Your task to perform on an android device: search for starred emails in the gmail app Image 0: 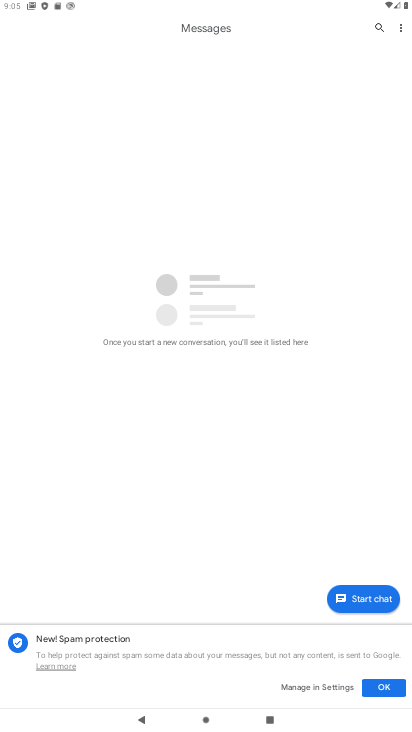
Step 0: press home button
Your task to perform on an android device: search for starred emails in the gmail app Image 1: 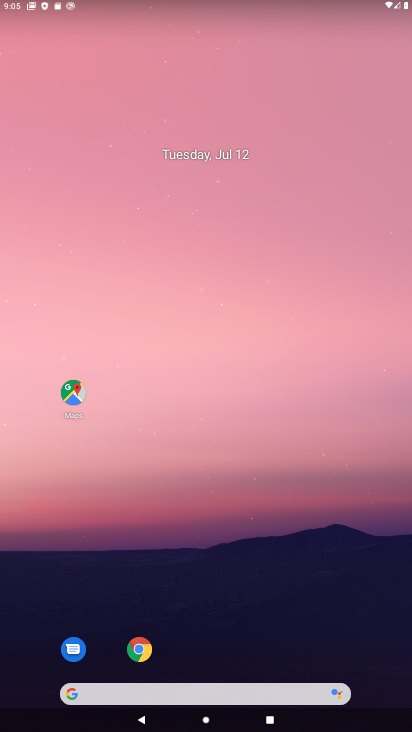
Step 1: drag from (293, 637) to (283, 252)
Your task to perform on an android device: search for starred emails in the gmail app Image 2: 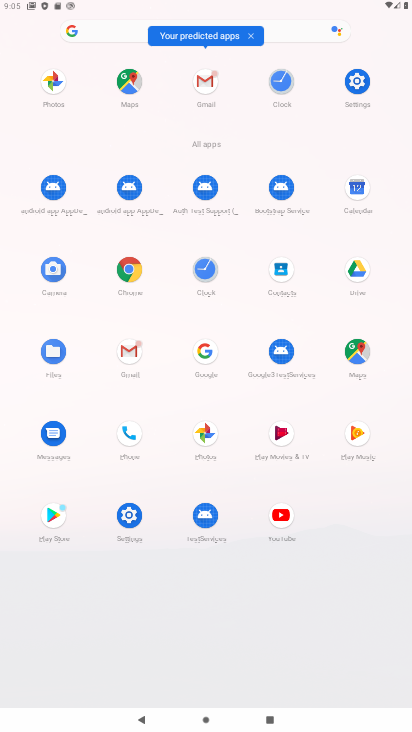
Step 2: click (200, 81)
Your task to perform on an android device: search for starred emails in the gmail app Image 3: 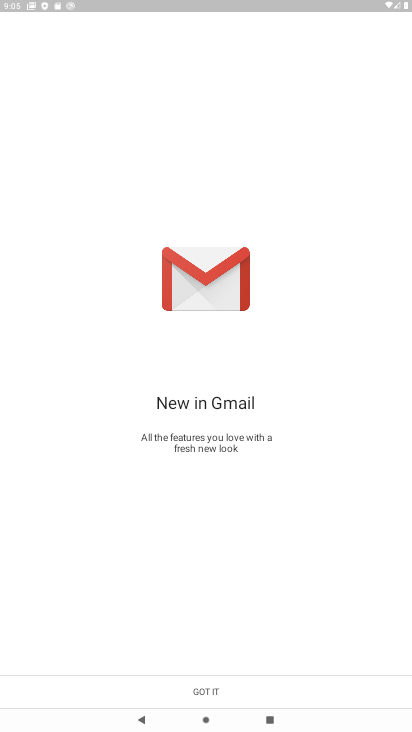
Step 3: click (57, 697)
Your task to perform on an android device: search for starred emails in the gmail app Image 4: 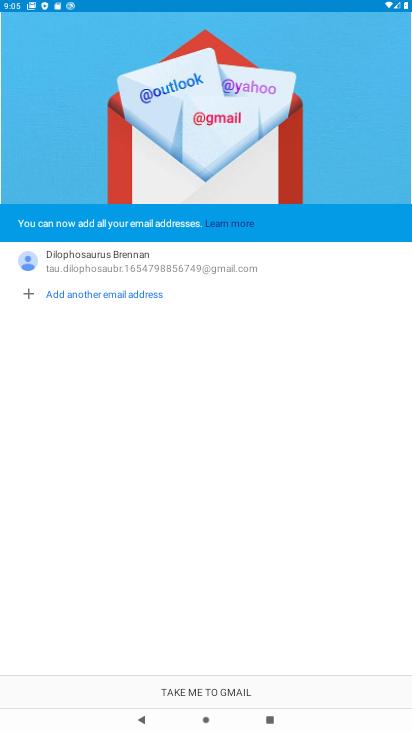
Step 4: click (76, 695)
Your task to perform on an android device: search for starred emails in the gmail app Image 5: 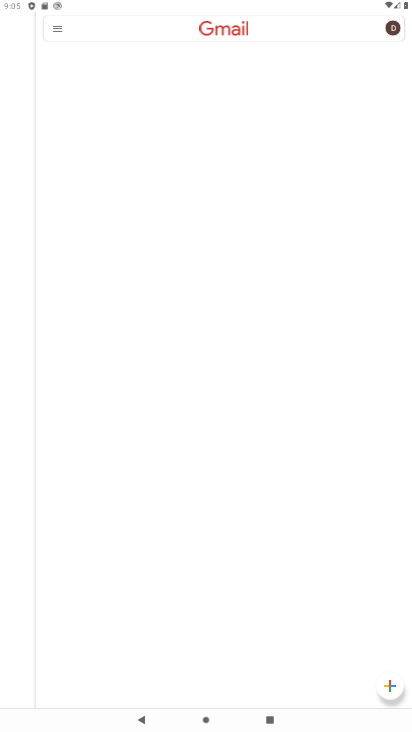
Step 5: click (60, 30)
Your task to perform on an android device: search for starred emails in the gmail app Image 6: 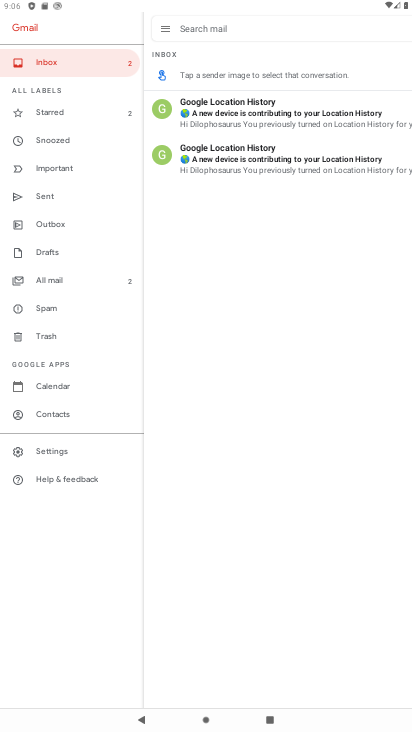
Step 6: click (63, 111)
Your task to perform on an android device: search for starred emails in the gmail app Image 7: 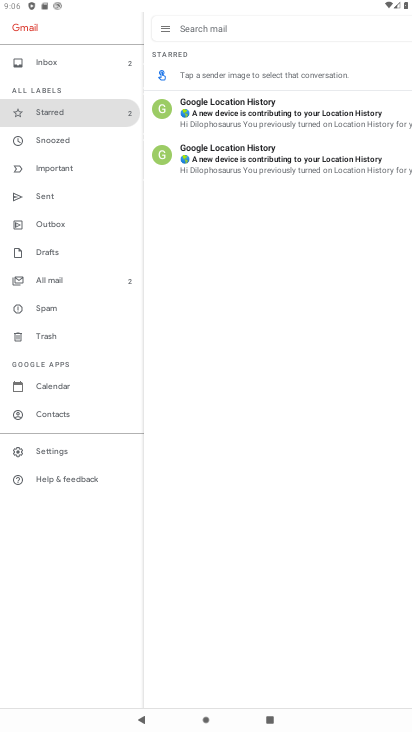
Step 7: task complete